Your task to perform on an android device: delete browsing data in the chrome app Image 0: 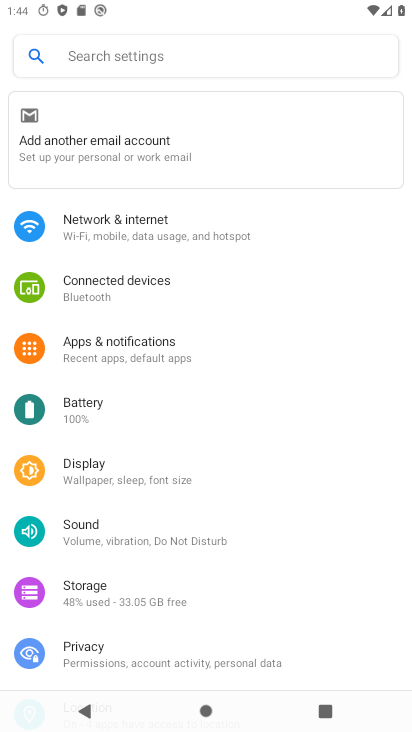
Step 0: press home button
Your task to perform on an android device: delete browsing data in the chrome app Image 1: 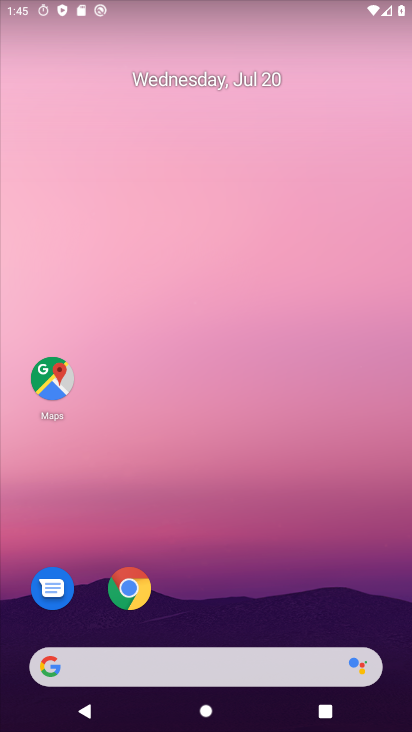
Step 1: drag from (154, 664) to (224, 114)
Your task to perform on an android device: delete browsing data in the chrome app Image 2: 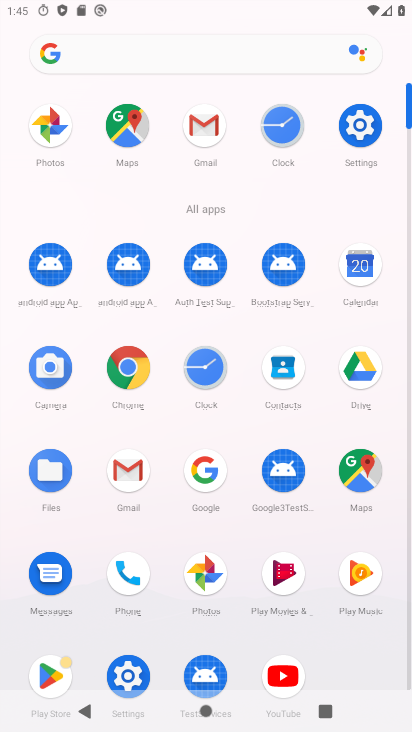
Step 2: click (136, 377)
Your task to perform on an android device: delete browsing data in the chrome app Image 3: 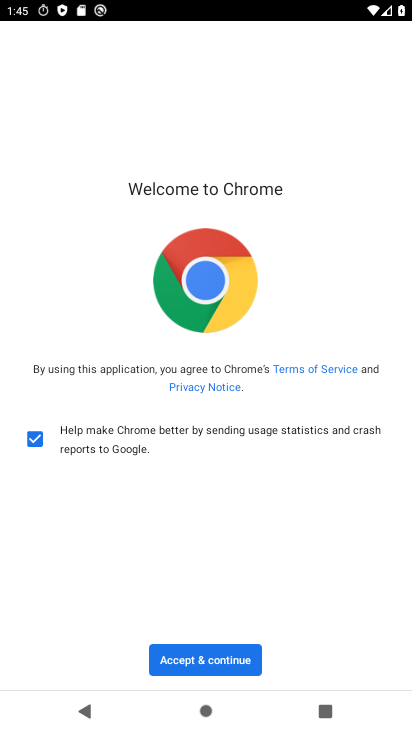
Step 3: click (222, 648)
Your task to perform on an android device: delete browsing data in the chrome app Image 4: 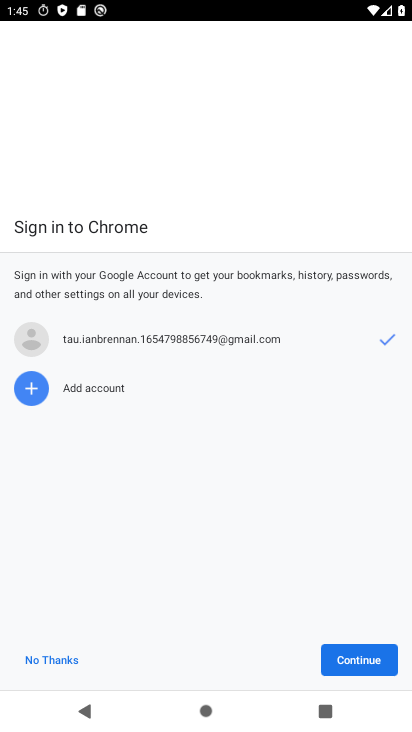
Step 4: click (47, 667)
Your task to perform on an android device: delete browsing data in the chrome app Image 5: 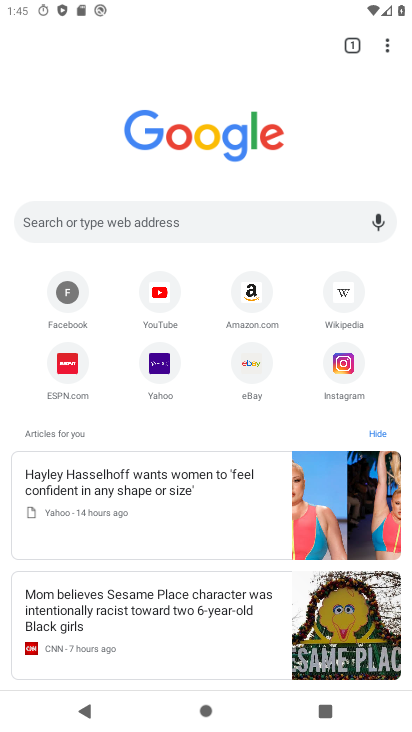
Step 5: click (389, 38)
Your task to perform on an android device: delete browsing data in the chrome app Image 6: 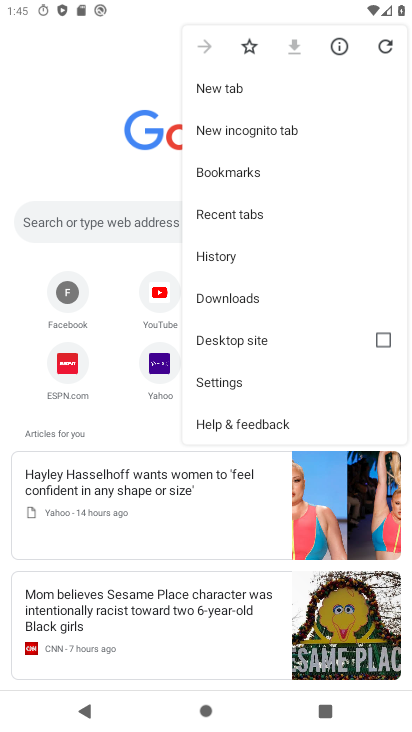
Step 6: click (240, 387)
Your task to perform on an android device: delete browsing data in the chrome app Image 7: 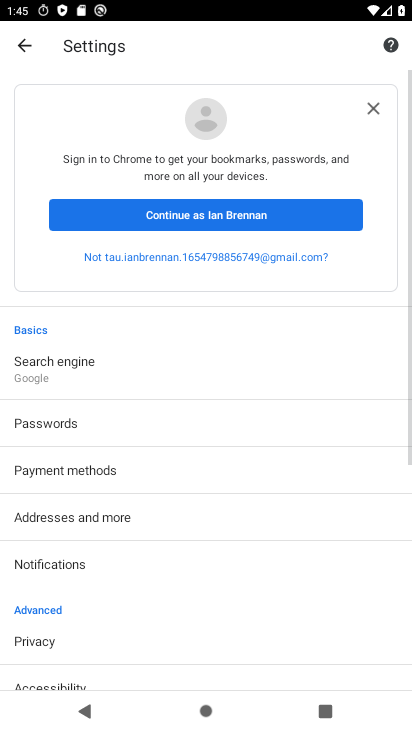
Step 7: click (56, 643)
Your task to perform on an android device: delete browsing data in the chrome app Image 8: 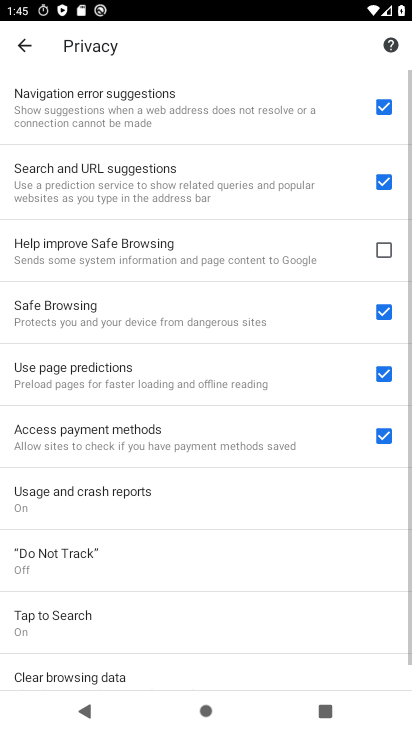
Step 8: drag from (185, 612) to (203, 224)
Your task to perform on an android device: delete browsing data in the chrome app Image 9: 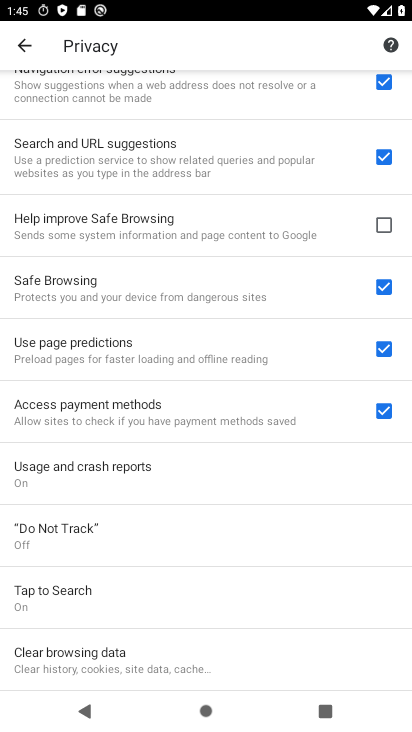
Step 9: click (125, 670)
Your task to perform on an android device: delete browsing data in the chrome app Image 10: 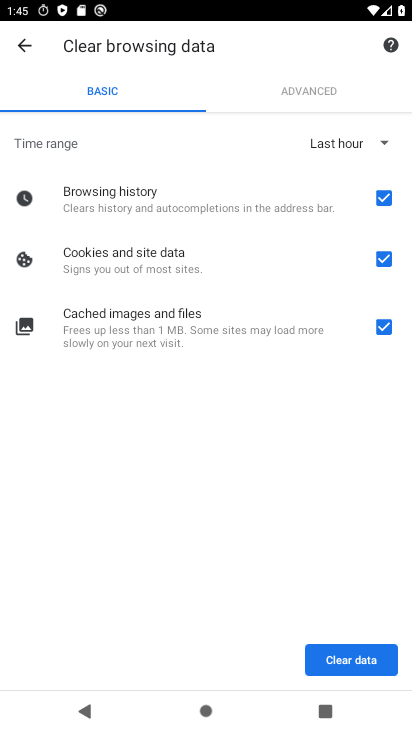
Step 10: click (344, 660)
Your task to perform on an android device: delete browsing data in the chrome app Image 11: 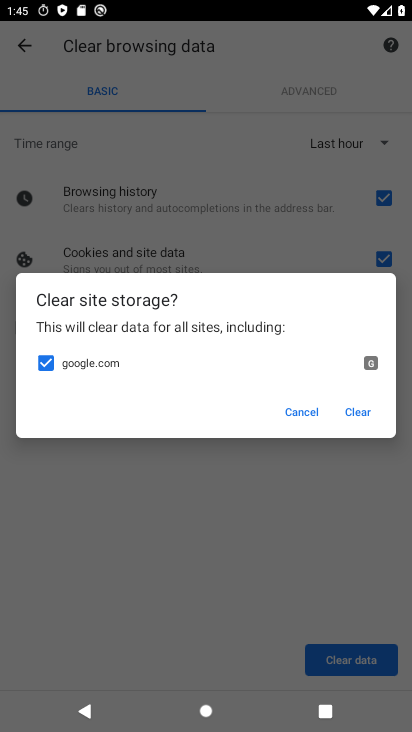
Step 11: click (362, 414)
Your task to perform on an android device: delete browsing data in the chrome app Image 12: 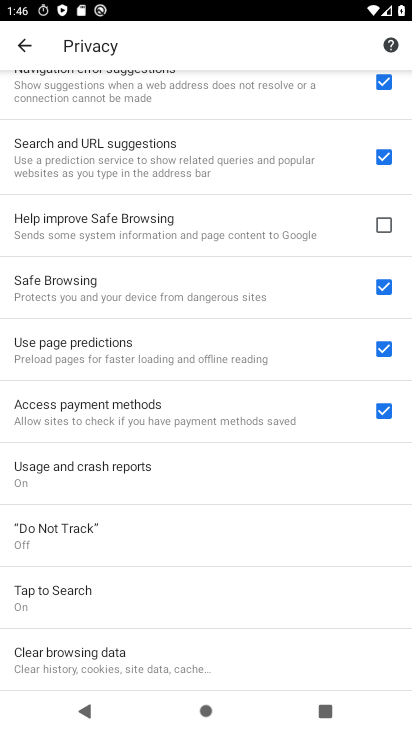
Step 12: task complete